Your task to perform on an android device: Go to wifi settings Image 0: 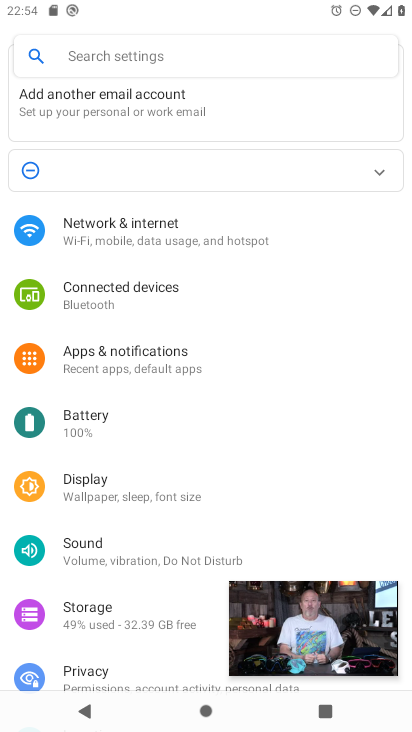
Step 0: drag from (319, 473) to (315, 241)
Your task to perform on an android device: Go to wifi settings Image 1: 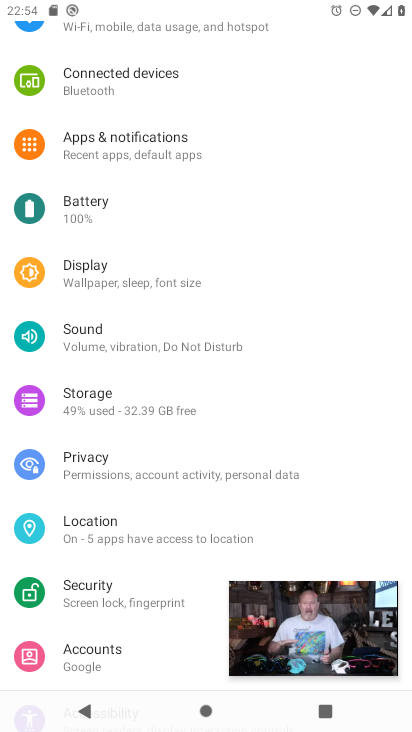
Step 1: drag from (332, 481) to (336, 292)
Your task to perform on an android device: Go to wifi settings Image 2: 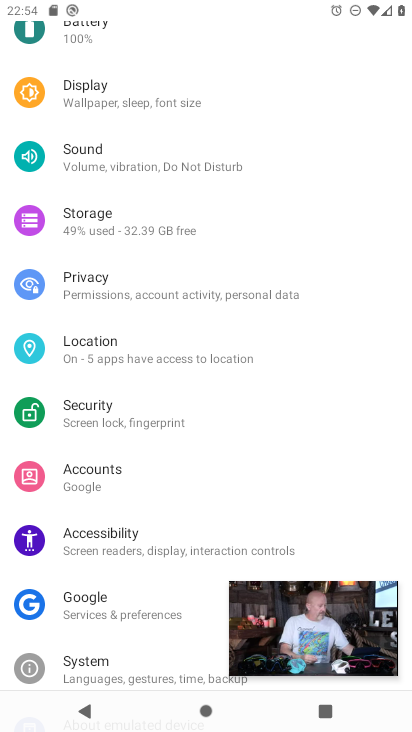
Step 2: drag from (349, 445) to (355, 210)
Your task to perform on an android device: Go to wifi settings Image 3: 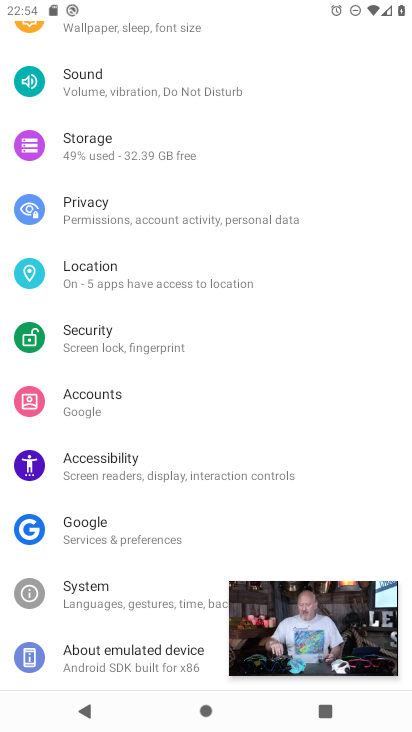
Step 3: drag from (341, 448) to (349, 87)
Your task to perform on an android device: Go to wifi settings Image 4: 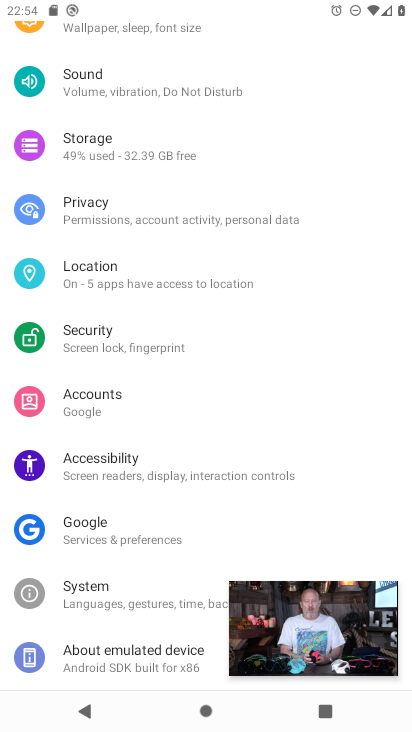
Step 4: drag from (321, 140) to (316, 302)
Your task to perform on an android device: Go to wifi settings Image 5: 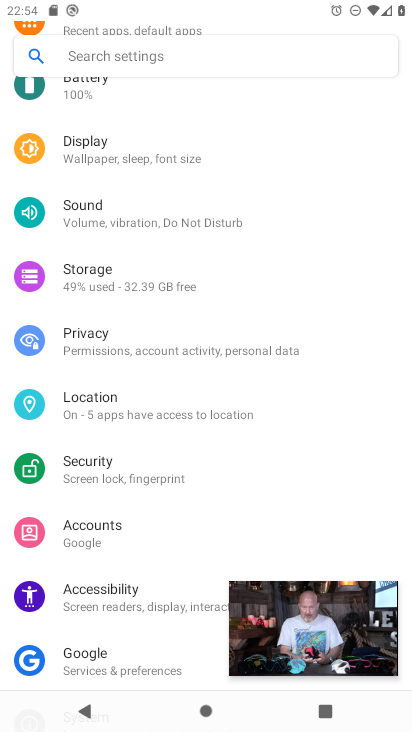
Step 5: drag from (311, 158) to (303, 333)
Your task to perform on an android device: Go to wifi settings Image 6: 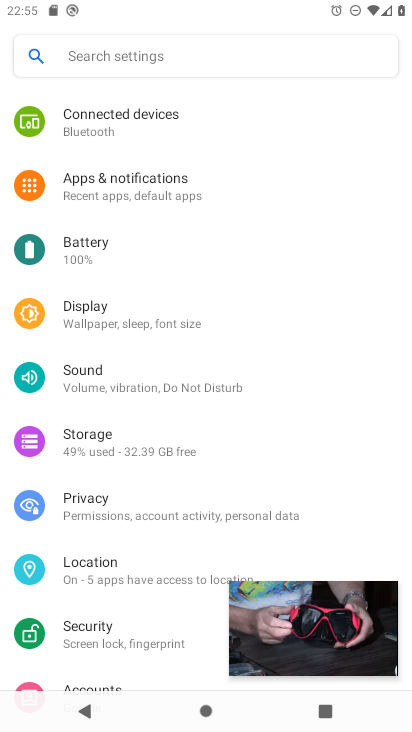
Step 6: drag from (294, 148) to (293, 331)
Your task to perform on an android device: Go to wifi settings Image 7: 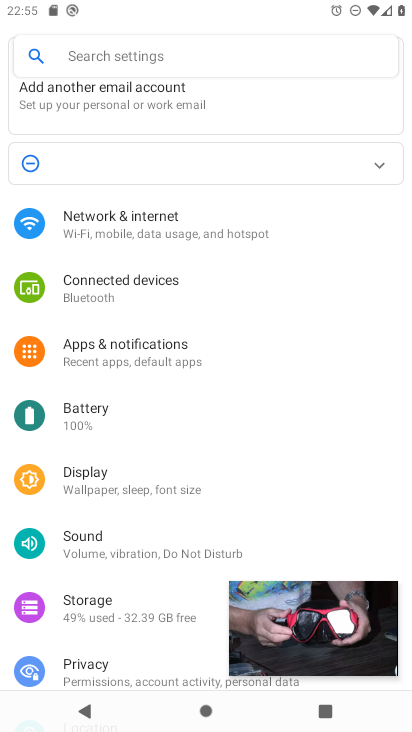
Step 7: click (234, 231)
Your task to perform on an android device: Go to wifi settings Image 8: 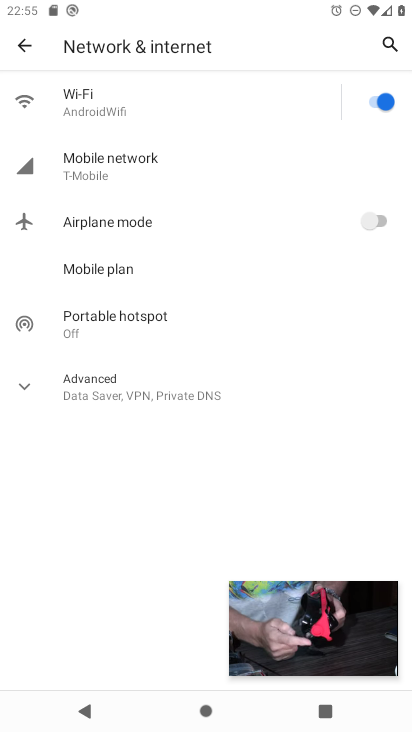
Step 8: click (98, 92)
Your task to perform on an android device: Go to wifi settings Image 9: 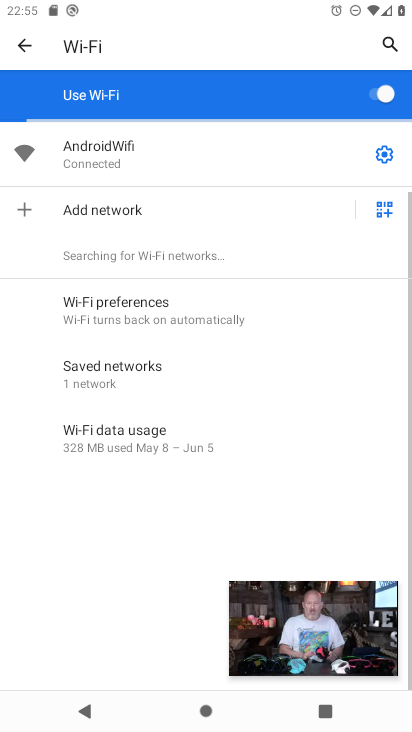
Step 9: task complete